Your task to perform on an android device: Show me productivity apps on the Play Store Image 0: 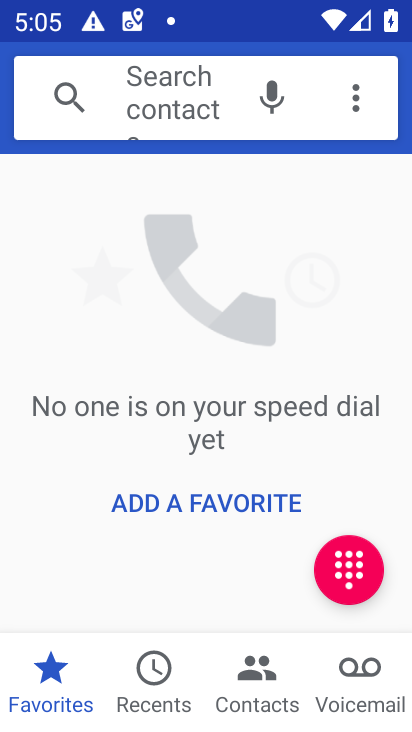
Step 0: press home button
Your task to perform on an android device: Show me productivity apps on the Play Store Image 1: 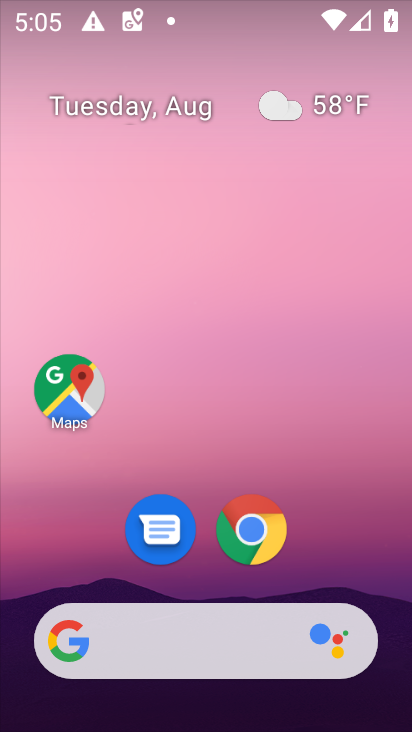
Step 1: drag from (210, 448) to (207, 97)
Your task to perform on an android device: Show me productivity apps on the Play Store Image 2: 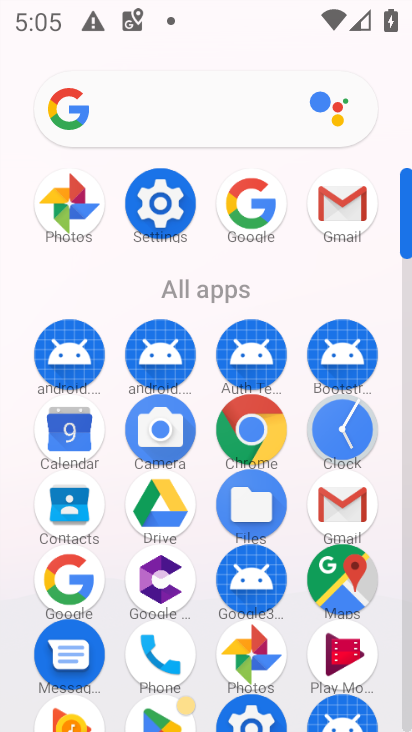
Step 2: drag from (200, 554) to (206, 228)
Your task to perform on an android device: Show me productivity apps on the Play Store Image 3: 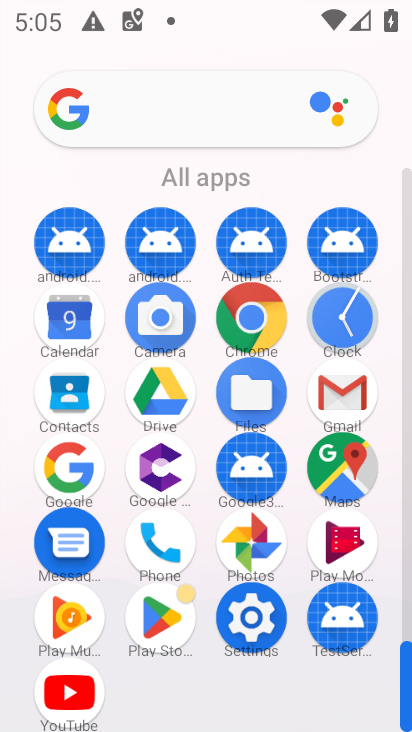
Step 3: click (176, 615)
Your task to perform on an android device: Show me productivity apps on the Play Store Image 4: 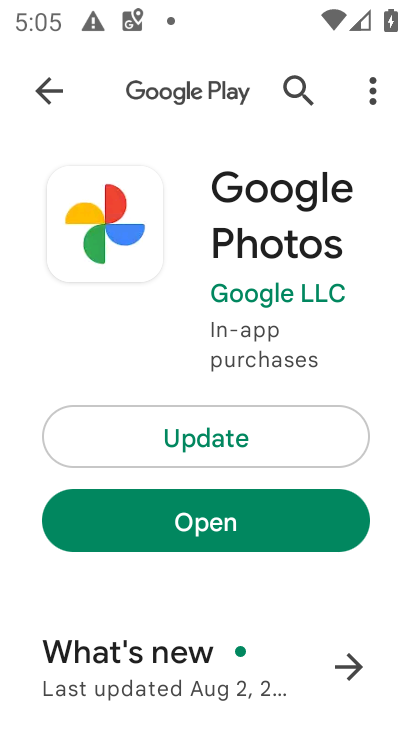
Step 4: click (26, 91)
Your task to perform on an android device: Show me productivity apps on the Play Store Image 5: 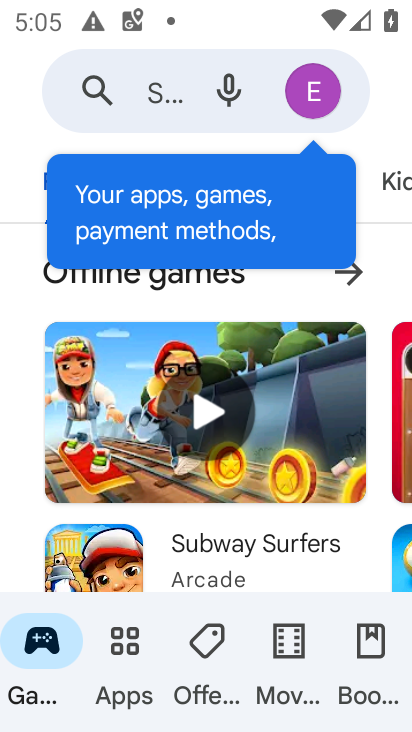
Step 5: click (134, 649)
Your task to perform on an android device: Show me productivity apps on the Play Store Image 6: 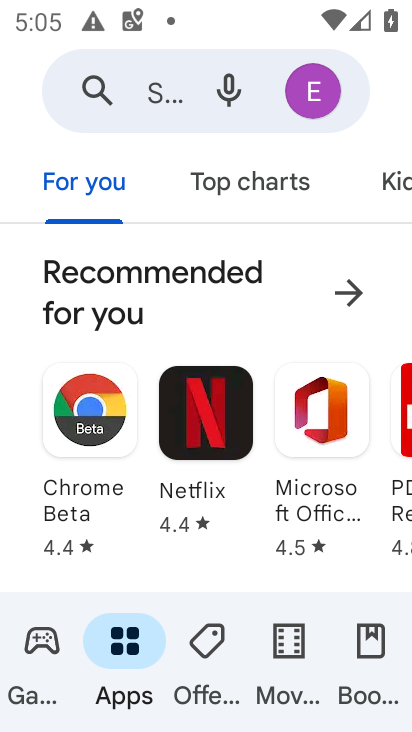
Step 6: drag from (289, 183) to (117, 186)
Your task to perform on an android device: Show me productivity apps on the Play Store Image 7: 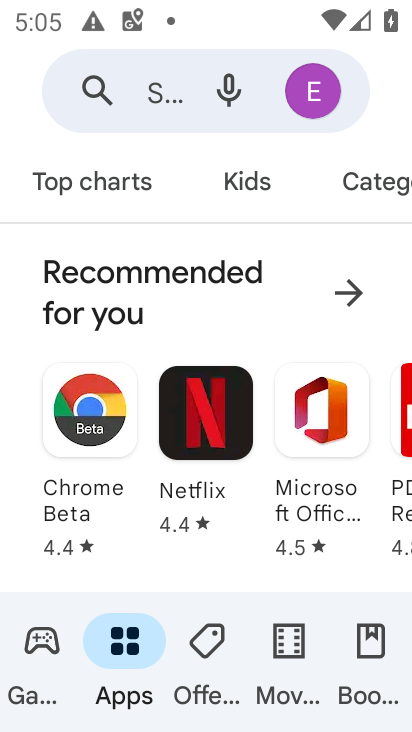
Step 7: drag from (311, 190) to (97, 191)
Your task to perform on an android device: Show me productivity apps on the Play Store Image 8: 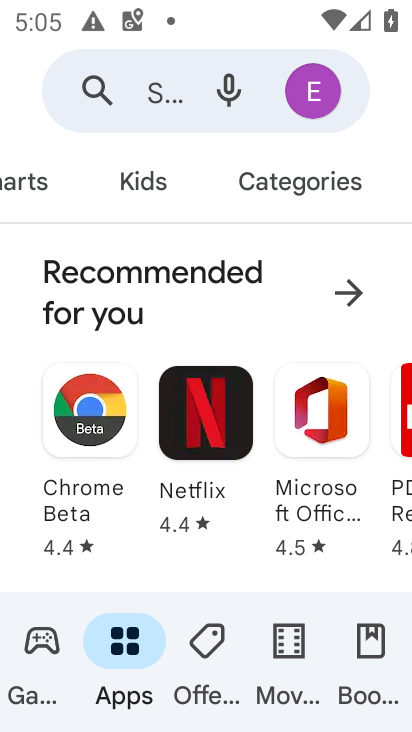
Step 8: click (249, 174)
Your task to perform on an android device: Show me productivity apps on the Play Store Image 9: 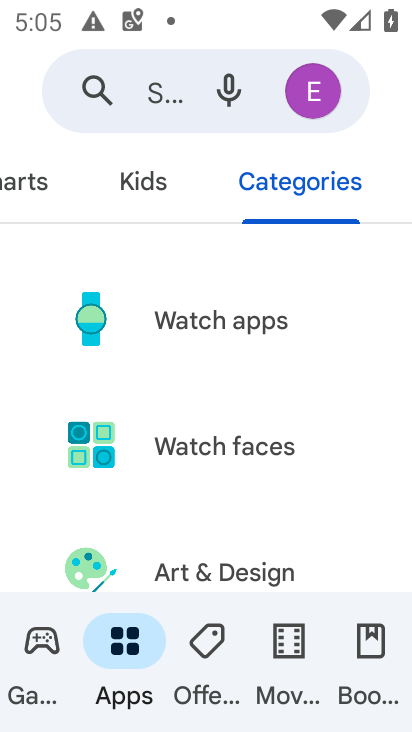
Step 9: drag from (263, 496) to (263, 219)
Your task to perform on an android device: Show me productivity apps on the Play Store Image 10: 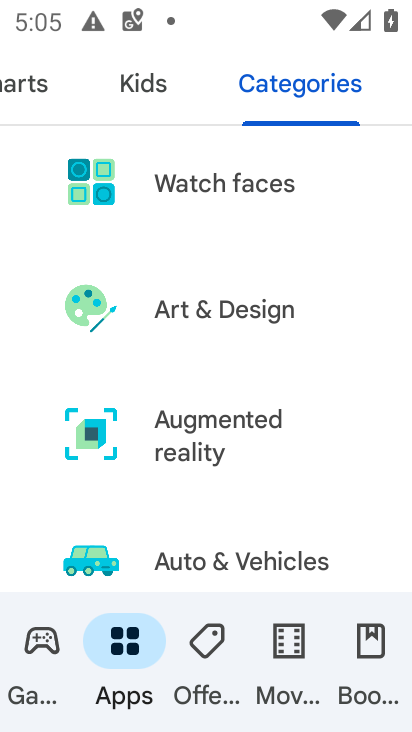
Step 10: drag from (267, 493) to (277, 242)
Your task to perform on an android device: Show me productivity apps on the Play Store Image 11: 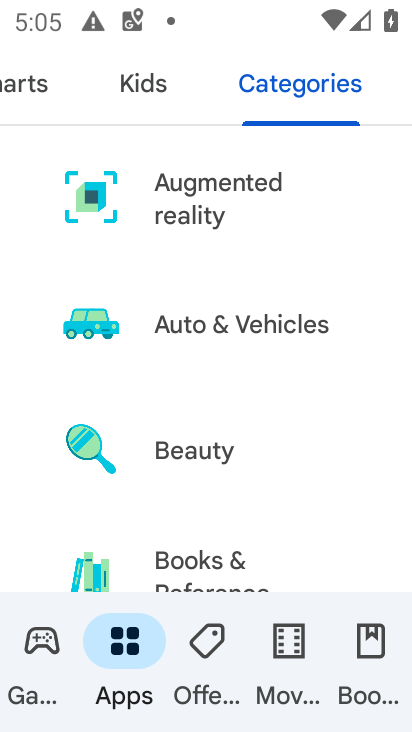
Step 11: drag from (270, 482) to (271, 193)
Your task to perform on an android device: Show me productivity apps on the Play Store Image 12: 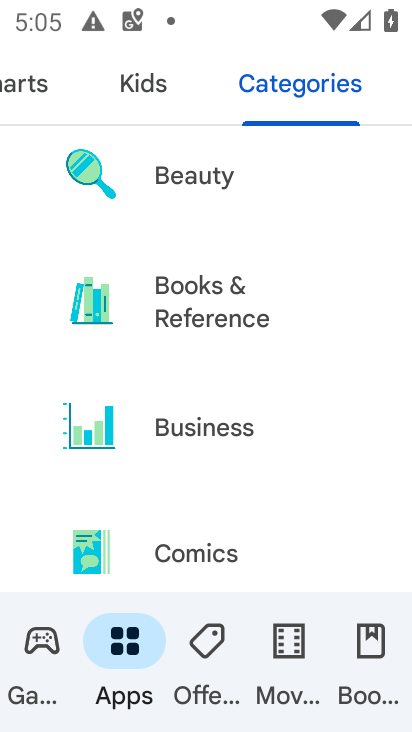
Step 12: drag from (239, 461) to (256, 232)
Your task to perform on an android device: Show me productivity apps on the Play Store Image 13: 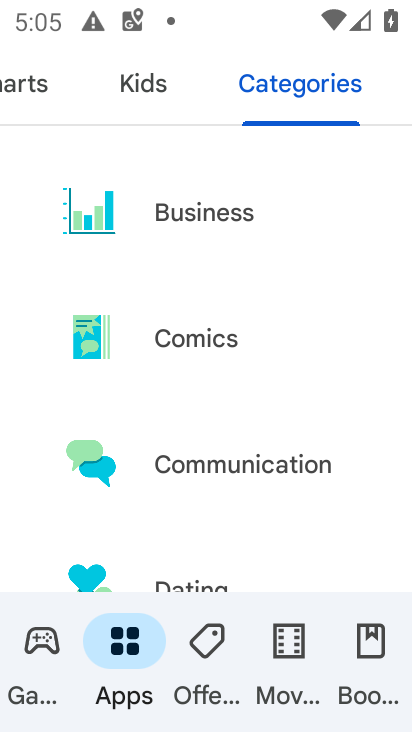
Step 13: drag from (232, 482) to (248, 229)
Your task to perform on an android device: Show me productivity apps on the Play Store Image 14: 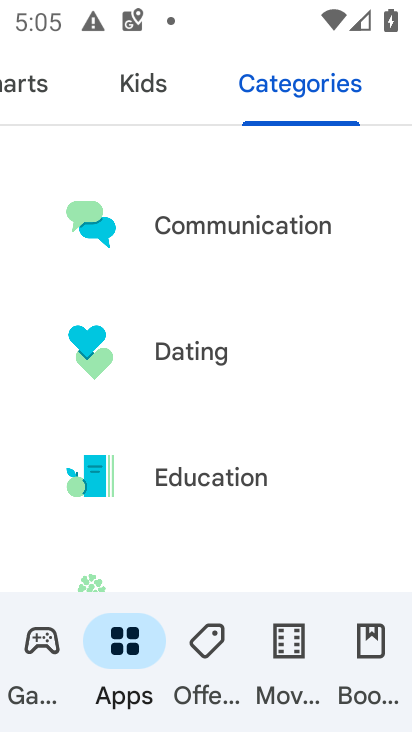
Step 14: drag from (226, 498) to (230, 281)
Your task to perform on an android device: Show me productivity apps on the Play Store Image 15: 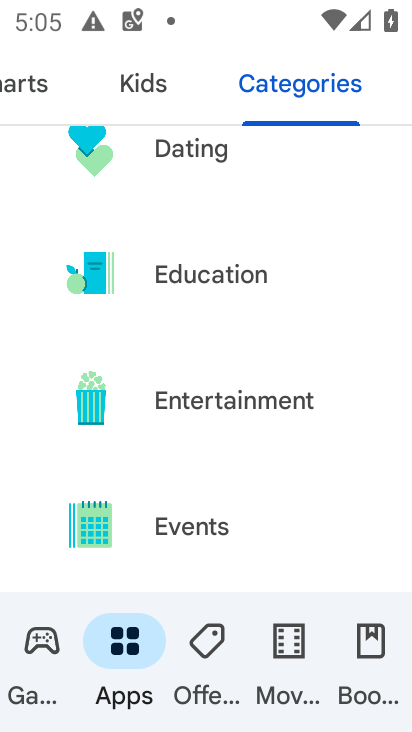
Step 15: drag from (195, 527) to (215, 258)
Your task to perform on an android device: Show me productivity apps on the Play Store Image 16: 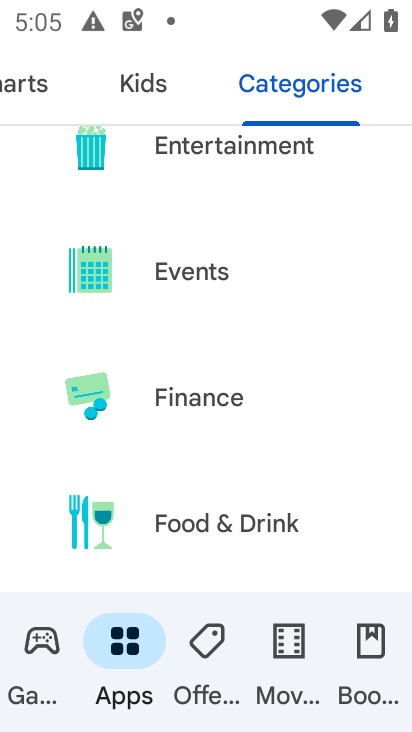
Step 16: drag from (215, 502) to (220, 218)
Your task to perform on an android device: Show me productivity apps on the Play Store Image 17: 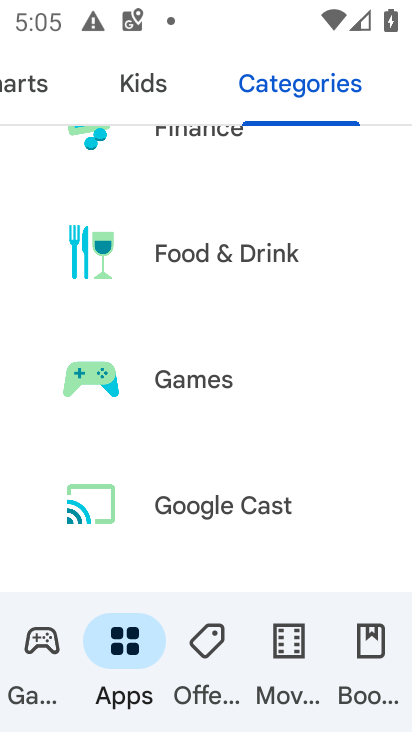
Step 17: drag from (241, 492) to (257, 244)
Your task to perform on an android device: Show me productivity apps on the Play Store Image 18: 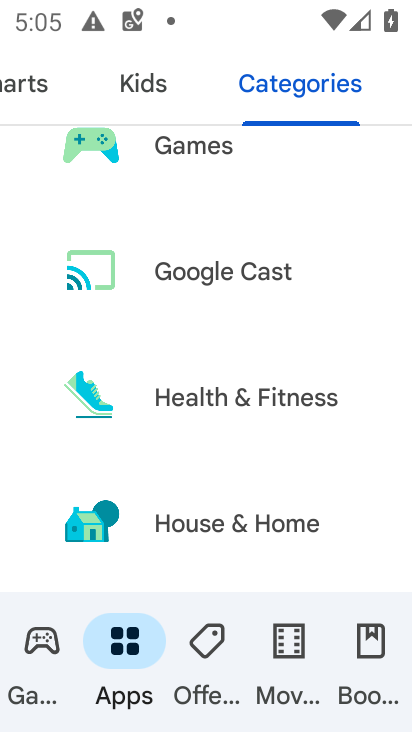
Step 18: drag from (247, 501) to (236, 235)
Your task to perform on an android device: Show me productivity apps on the Play Store Image 19: 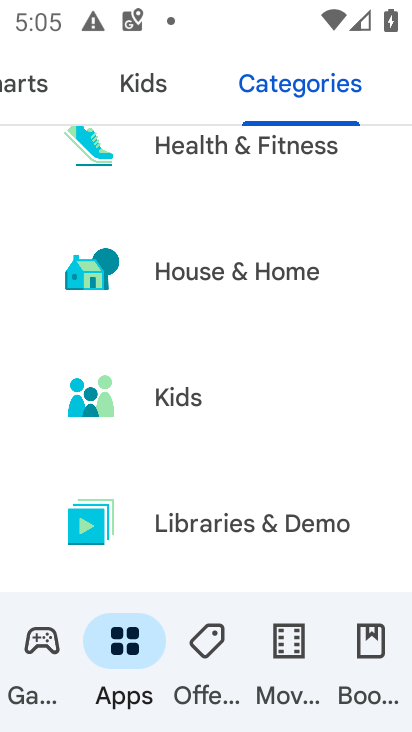
Step 19: drag from (215, 478) to (226, 211)
Your task to perform on an android device: Show me productivity apps on the Play Store Image 20: 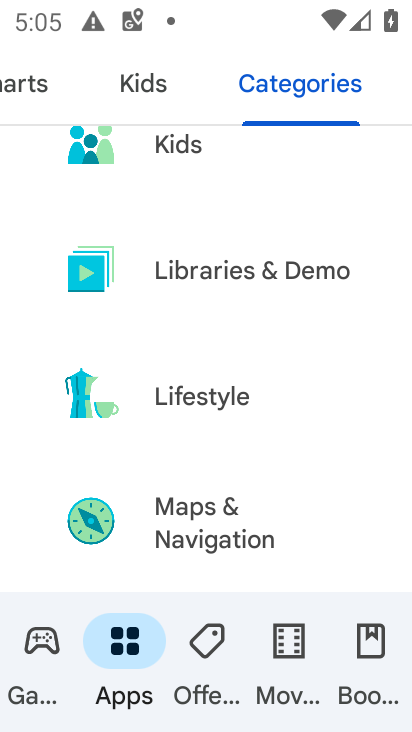
Step 20: drag from (229, 477) to (248, 240)
Your task to perform on an android device: Show me productivity apps on the Play Store Image 21: 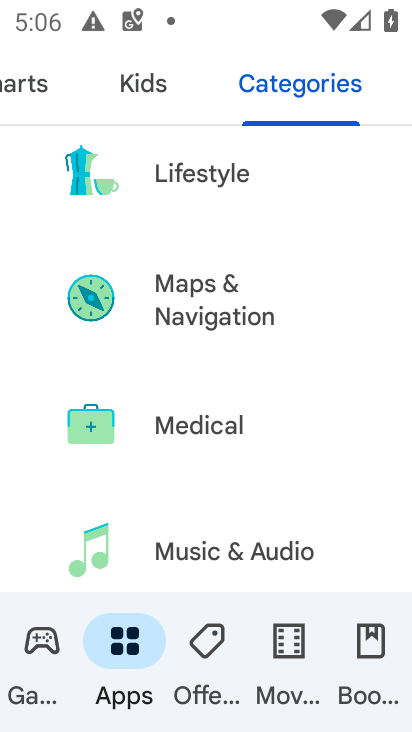
Step 21: drag from (246, 477) to (252, 293)
Your task to perform on an android device: Show me productivity apps on the Play Store Image 22: 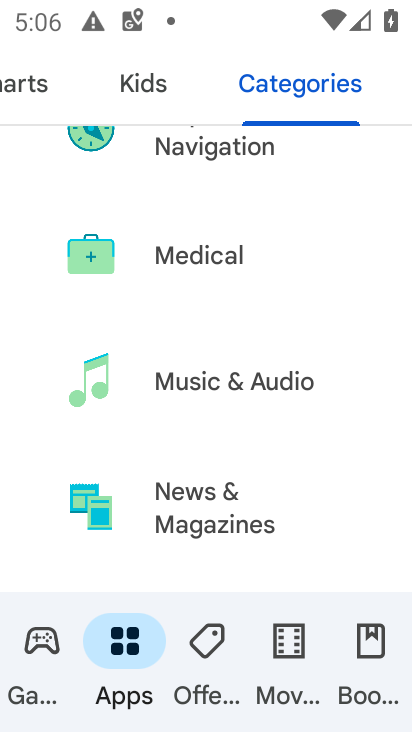
Step 22: drag from (233, 479) to (236, 254)
Your task to perform on an android device: Show me productivity apps on the Play Store Image 23: 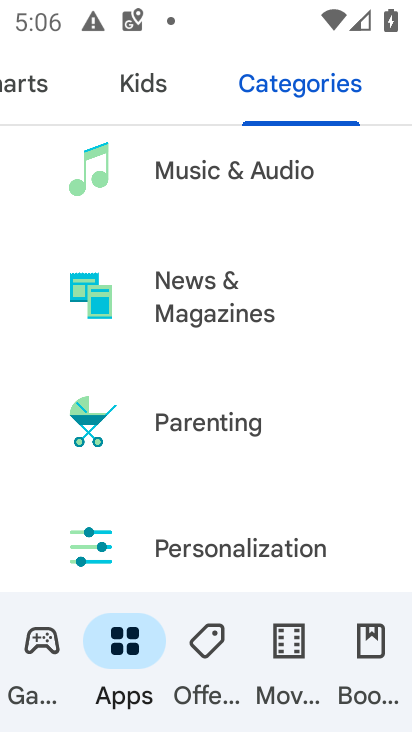
Step 23: drag from (257, 499) to (255, 246)
Your task to perform on an android device: Show me productivity apps on the Play Store Image 24: 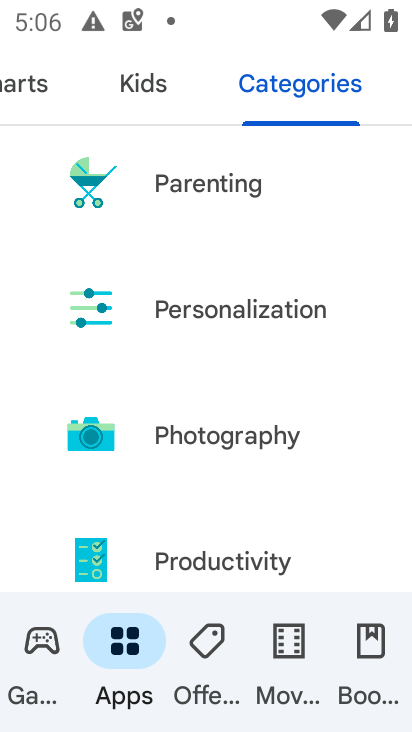
Step 24: click (240, 553)
Your task to perform on an android device: Show me productivity apps on the Play Store Image 25: 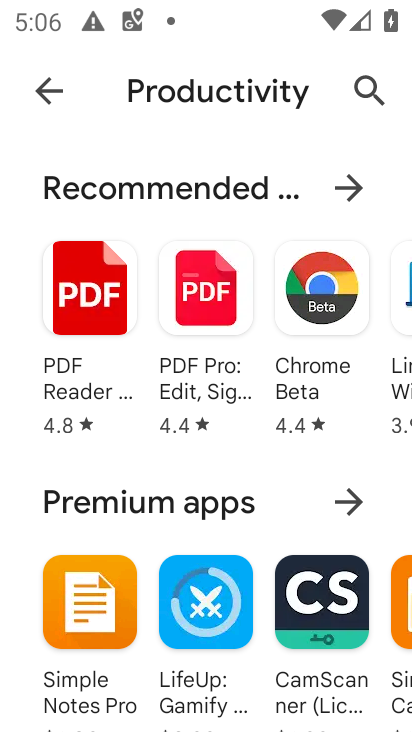
Step 25: task complete